Your task to perform on an android device: change the clock display to show seconds Image 0: 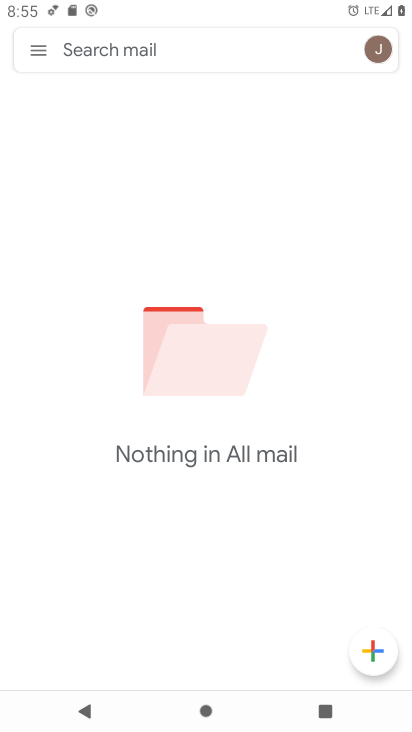
Step 0: press home button
Your task to perform on an android device: change the clock display to show seconds Image 1: 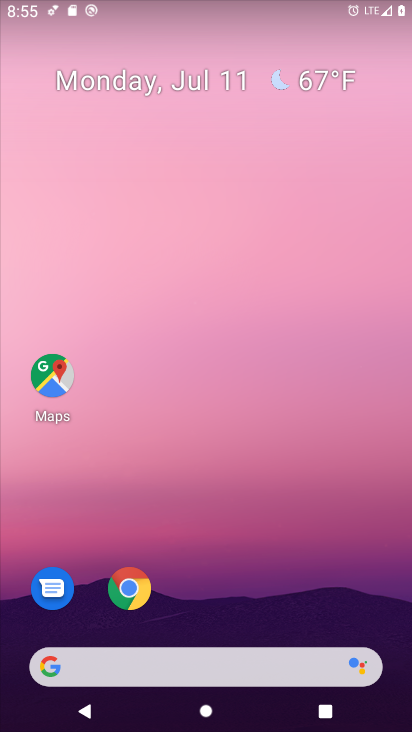
Step 1: drag from (205, 569) to (364, 16)
Your task to perform on an android device: change the clock display to show seconds Image 2: 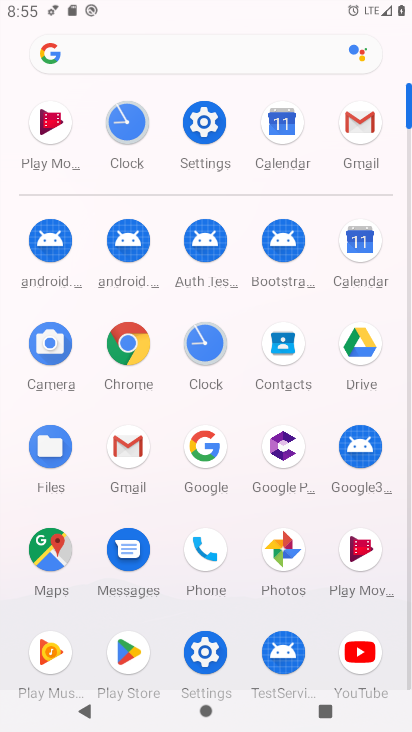
Step 2: click (123, 112)
Your task to perform on an android device: change the clock display to show seconds Image 3: 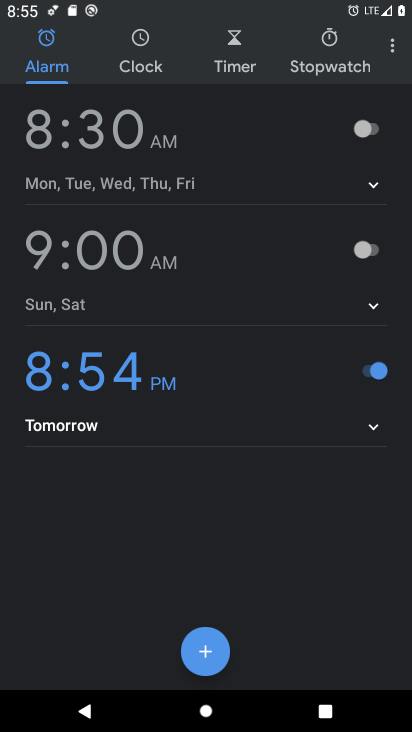
Step 3: click (391, 43)
Your task to perform on an android device: change the clock display to show seconds Image 4: 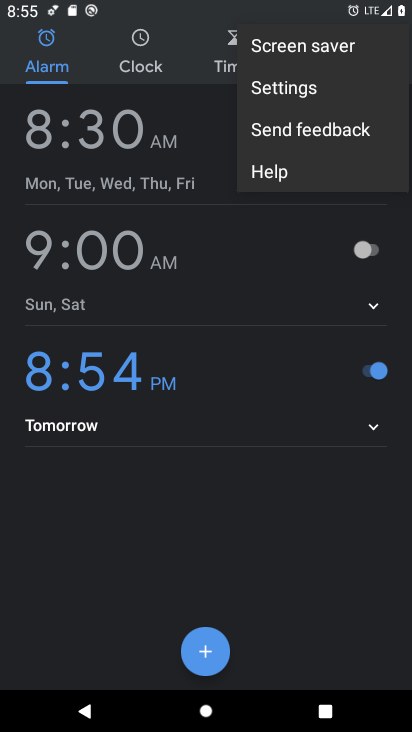
Step 4: click (327, 82)
Your task to perform on an android device: change the clock display to show seconds Image 5: 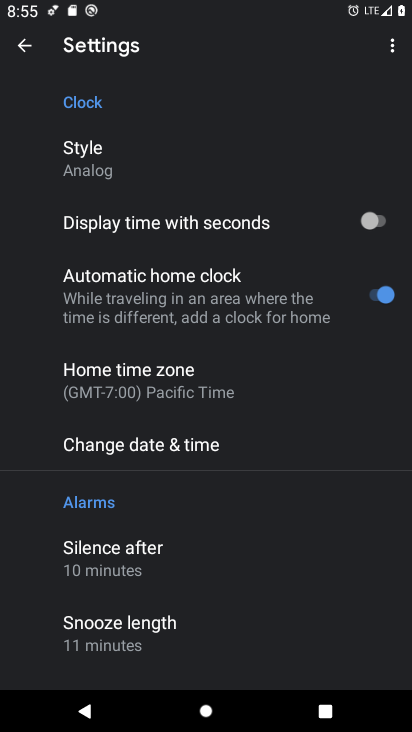
Step 5: click (372, 217)
Your task to perform on an android device: change the clock display to show seconds Image 6: 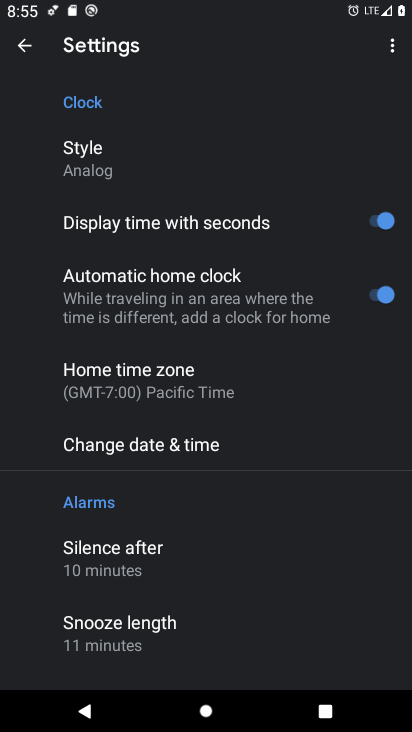
Step 6: task complete